Your task to perform on an android device: Go to location settings Image 0: 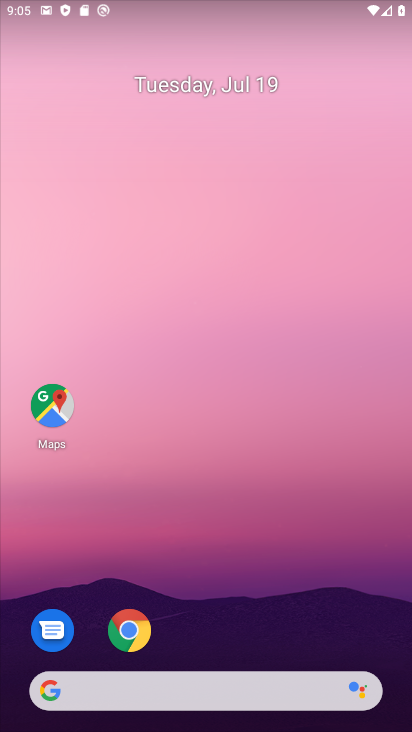
Step 0: drag from (32, 678) to (268, 80)
Your task to perform on an android device: Go to location settings Image 1: 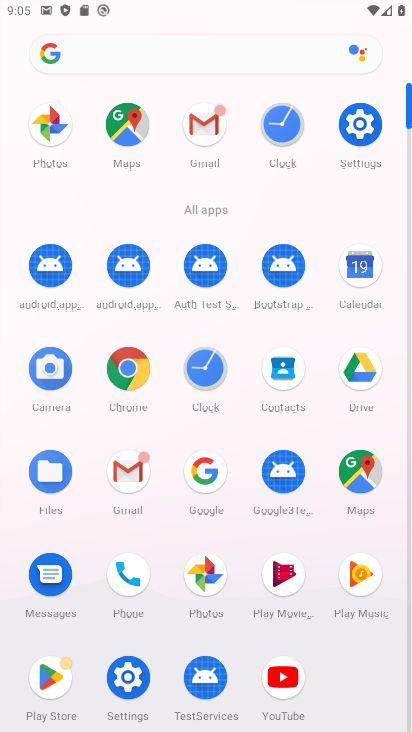
Step 1: click (365, 492)
Your task to perform on an android device: Go to location settings Image 2: 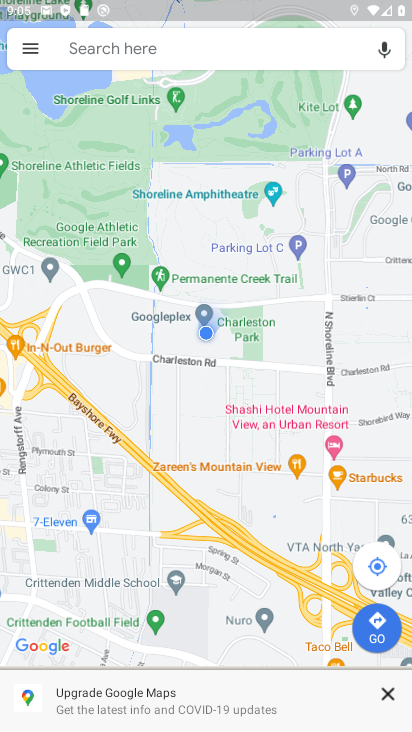
Step 2: click (20, 49)
Your task to perform on an android device: Go to location settings Image 3: 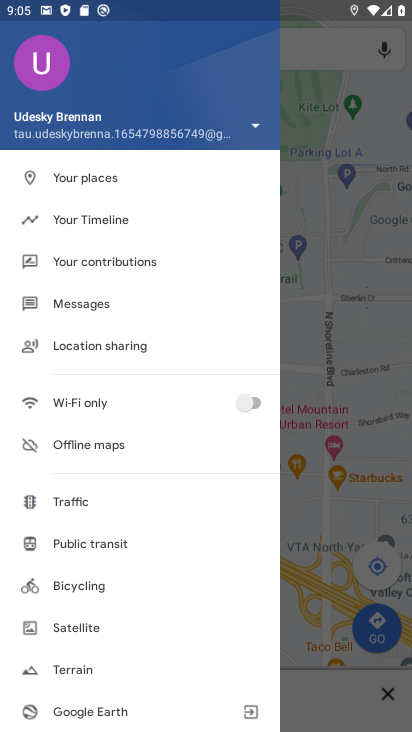
Step 3: drag from (183, 663) to (199, 349)
Your task to perform on an android device: Go to location settings Image 4: 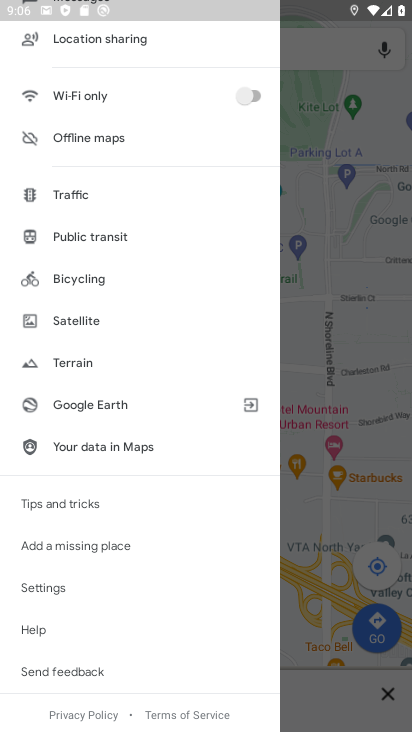
Step 4: drag from (155, 246) to (155, 581)
Your task to perform on an android device: Go to location settings Image 5: 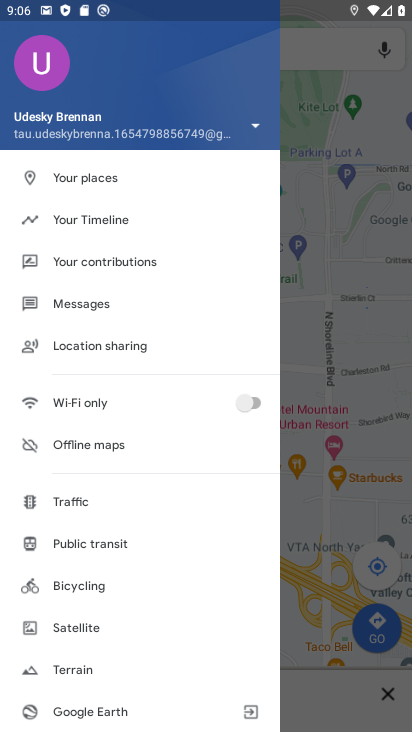
Step 5: drag from (140, 573) to (140, 460)
Your task to perform on an android device: Go to location settings Image 6: 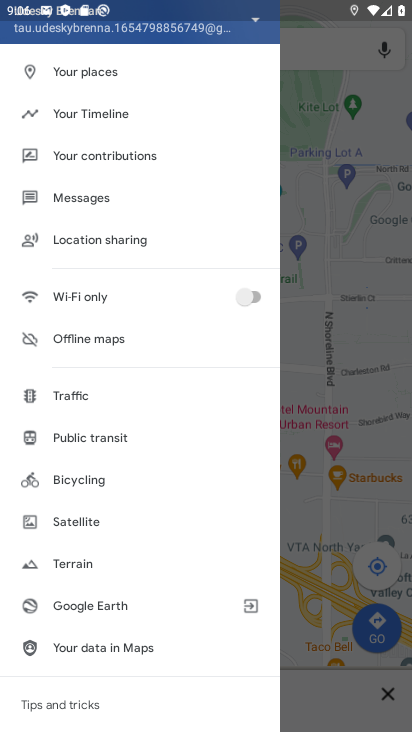
Step 6: drag from (129, 676) to (136, 476)
Your task to perform on an android device: Go to location settings Image 7: 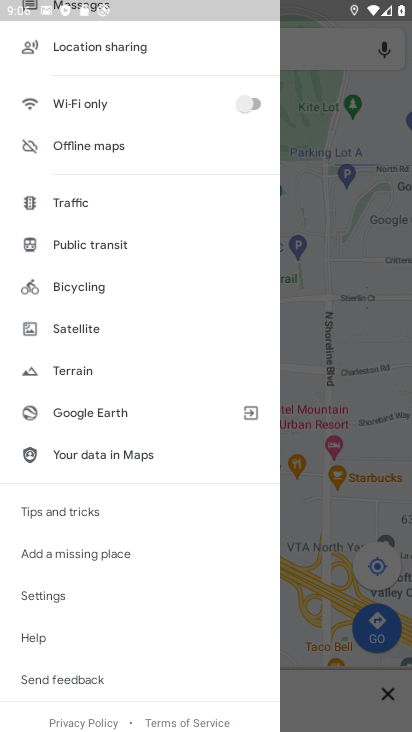
Step 7: click (59, 591)
Your task to perform on an android device: Go to location settings Image 8: 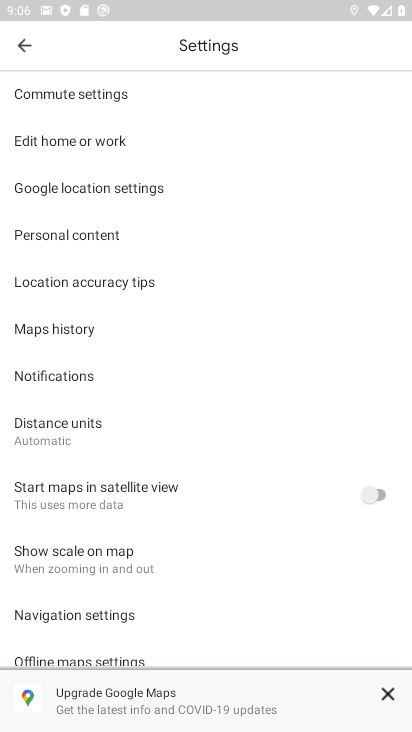
Step 8: click (86, 189)
Your task to perform on an android device: Go to location settings Image 9: 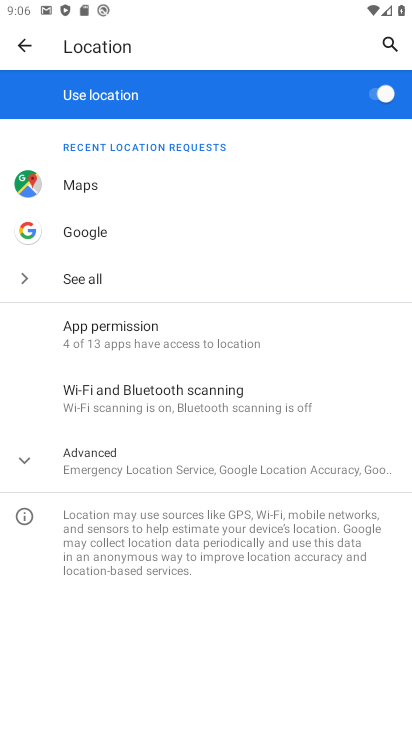
Step 9: task complete